Your task to perform on an android device: change the upload size in google photos Image 0: 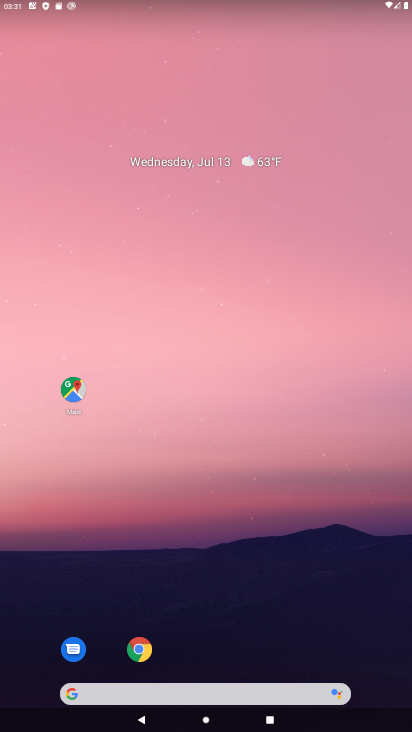
Step 0: drag from (294, 562) to (314, 0)
Your task to perform on an android device: change the upload size in google photos Image 1: 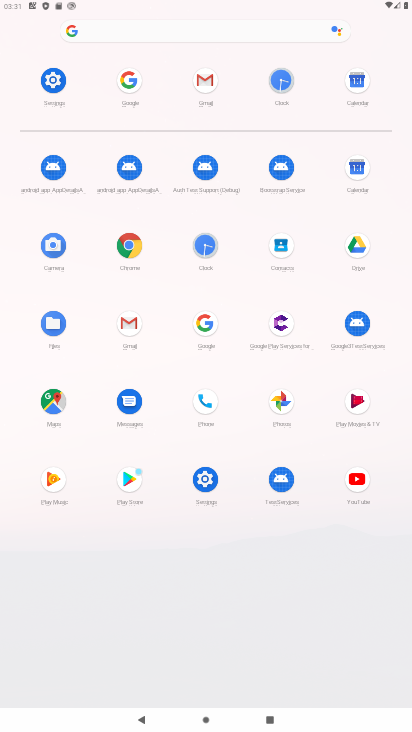
Step 1: click (278, 396)
Your task to perform on an android device: change the upload size in google photos Image 2: 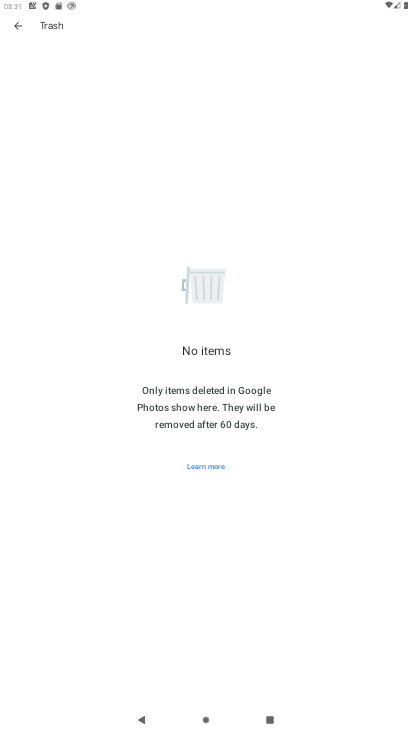
Step 2: click (15, 33)
Your task to perform on an android device: change the upload size in google photos Image 3: 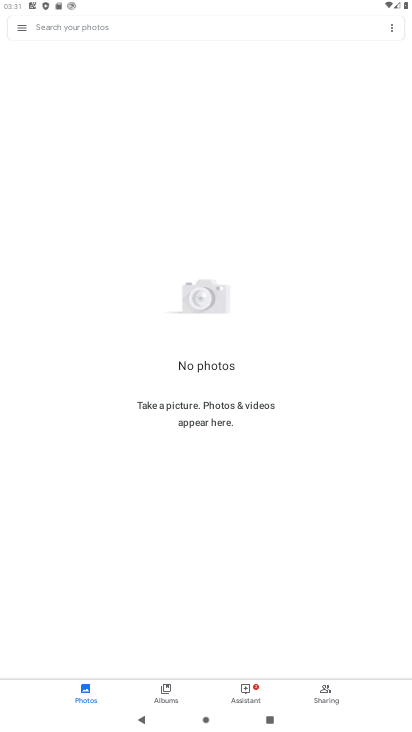
Step 3: click (22, 29)
Your task to perform on an android device: change the upload size in google photos Image 4: 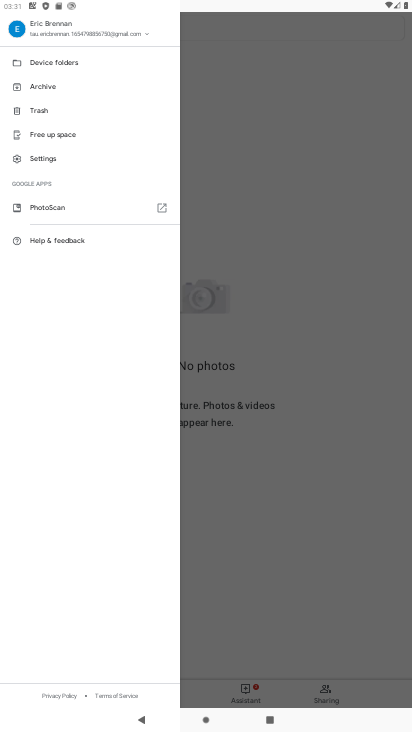
Step 4: click (44, 150)
Your task to perform on an android device: change the upload size in google photos Image 5: 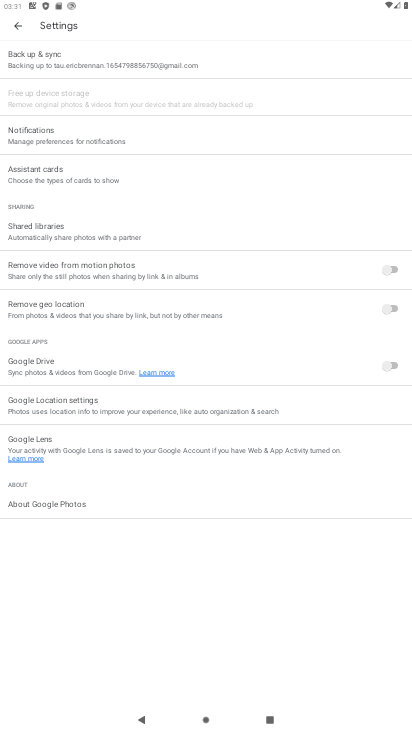
Step 5: click (102, 77)
Your task to perform on an android device: change the upload size in google photos Image 6: 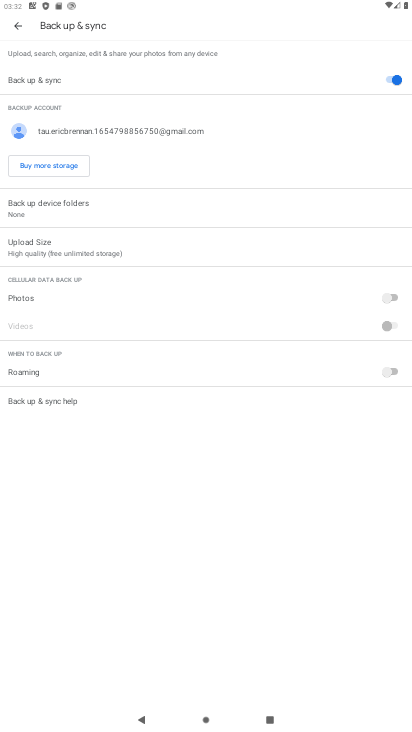
Step 6: click (39, 257)
Your task to perform on an android device: change the upload size in google photos Image 7: 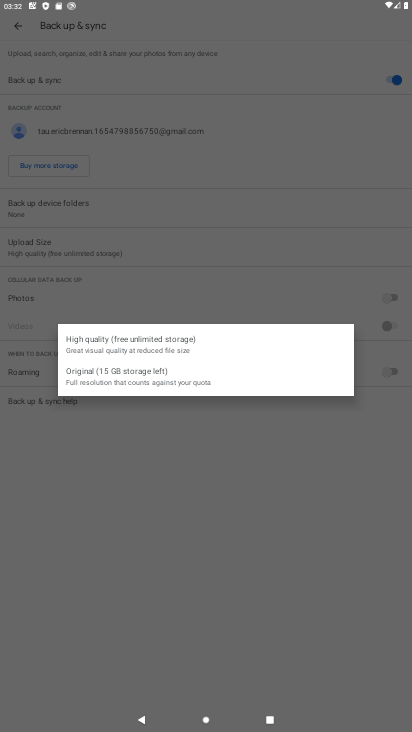
Step 7: click (127, 375)
Your task to perform on an android device: change the upload size in google photos Image 8: 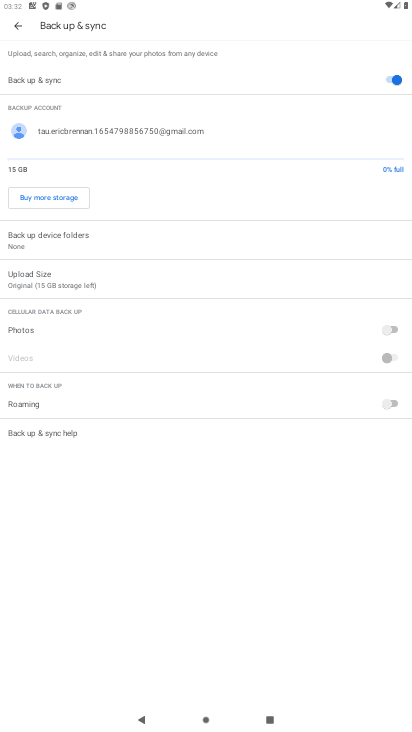
Step 8: task complete